Your task to perform on an android device: toggle notification dots Image 0: 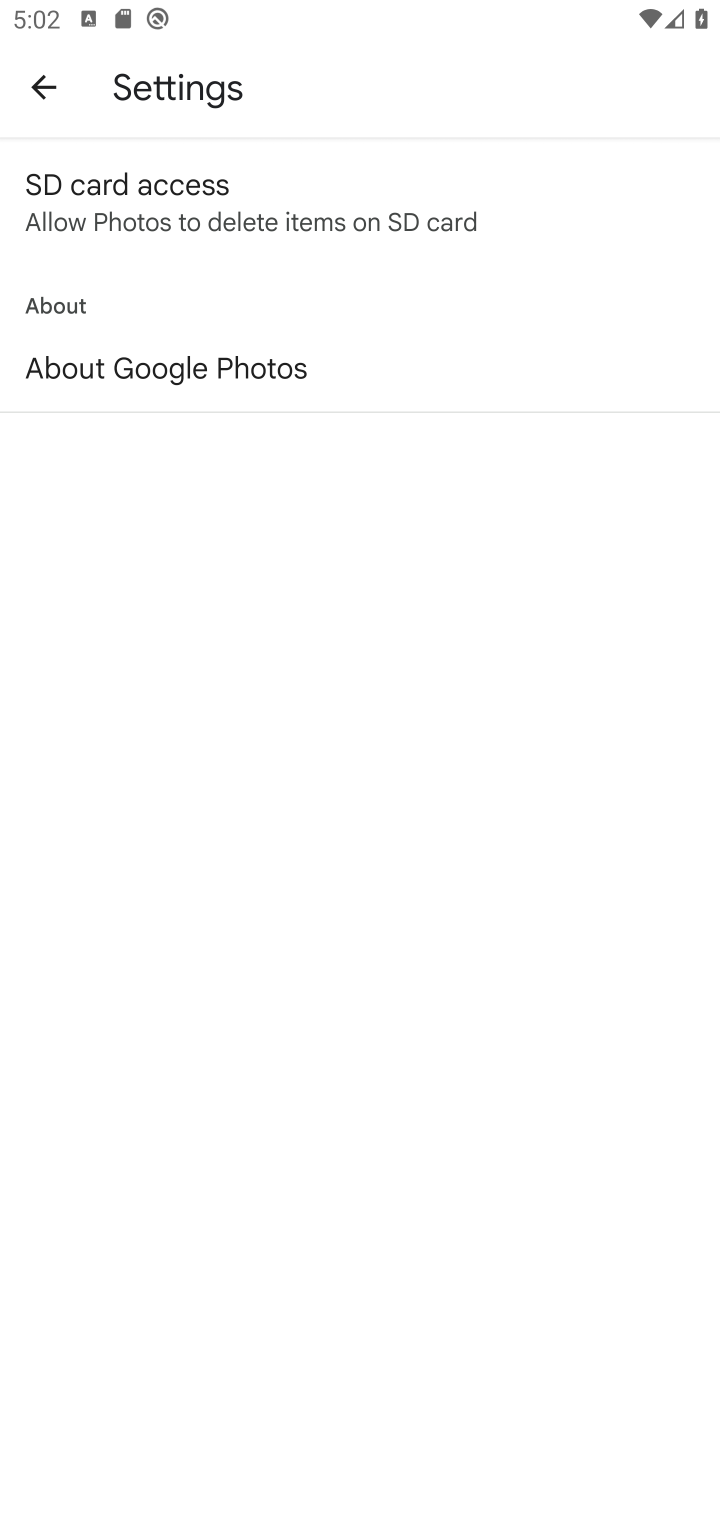
Step 0: press home button
Your task to perform on an android device: toggle notification dots Image 1: 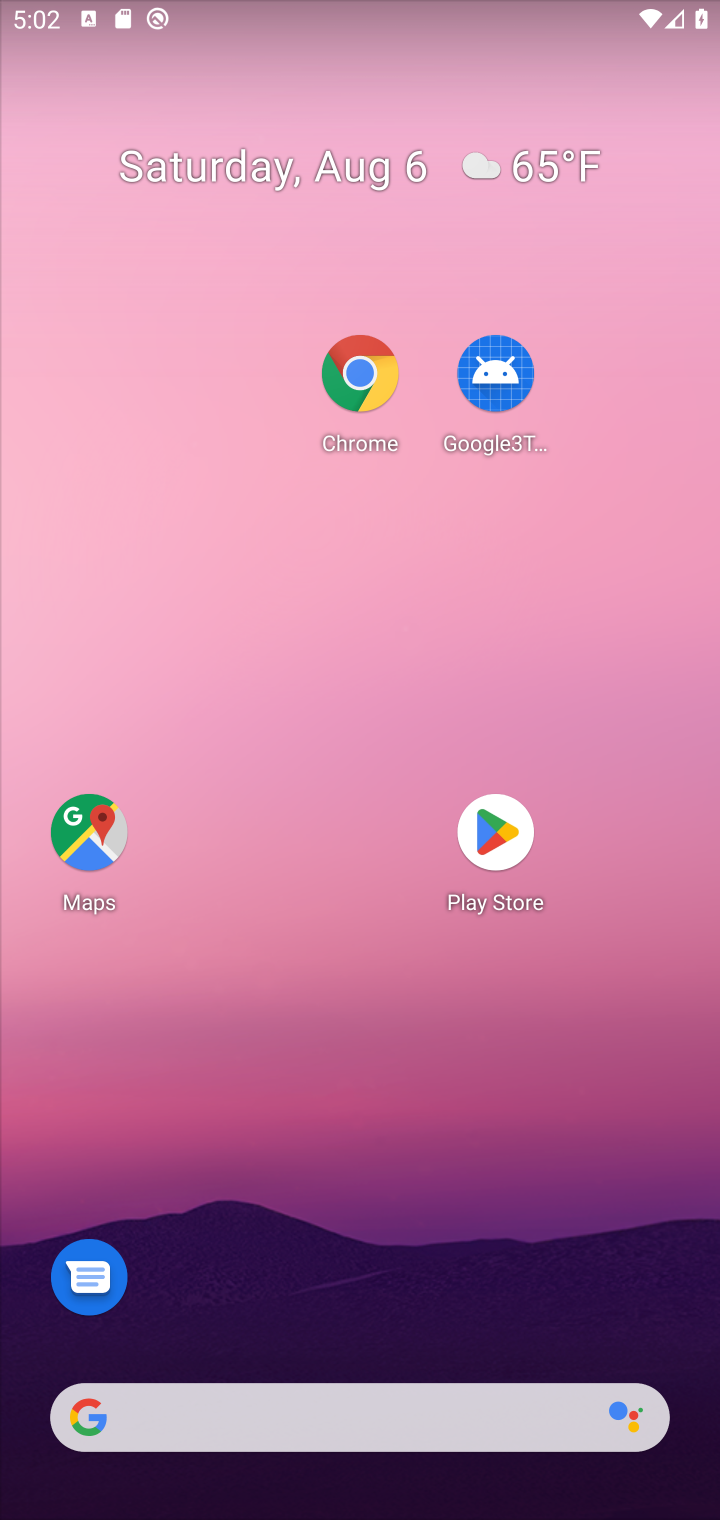
Step 1: drag from (346, 1407) to (386, 138)
Your task to perform on an android device: toggle notification dots Image 2: 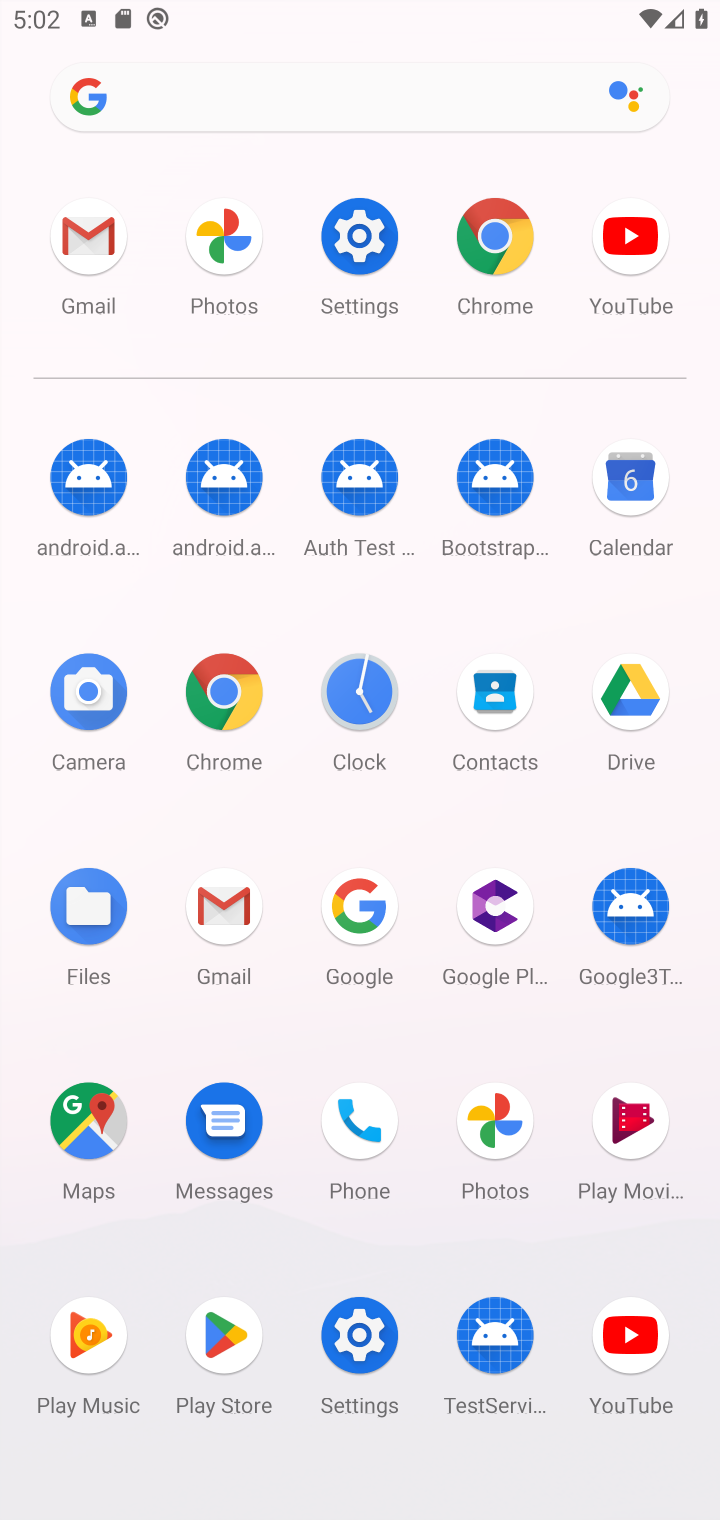
Step 2: click (378, 234)
Your task to perform on an android device: toggle notification dots Image 3: 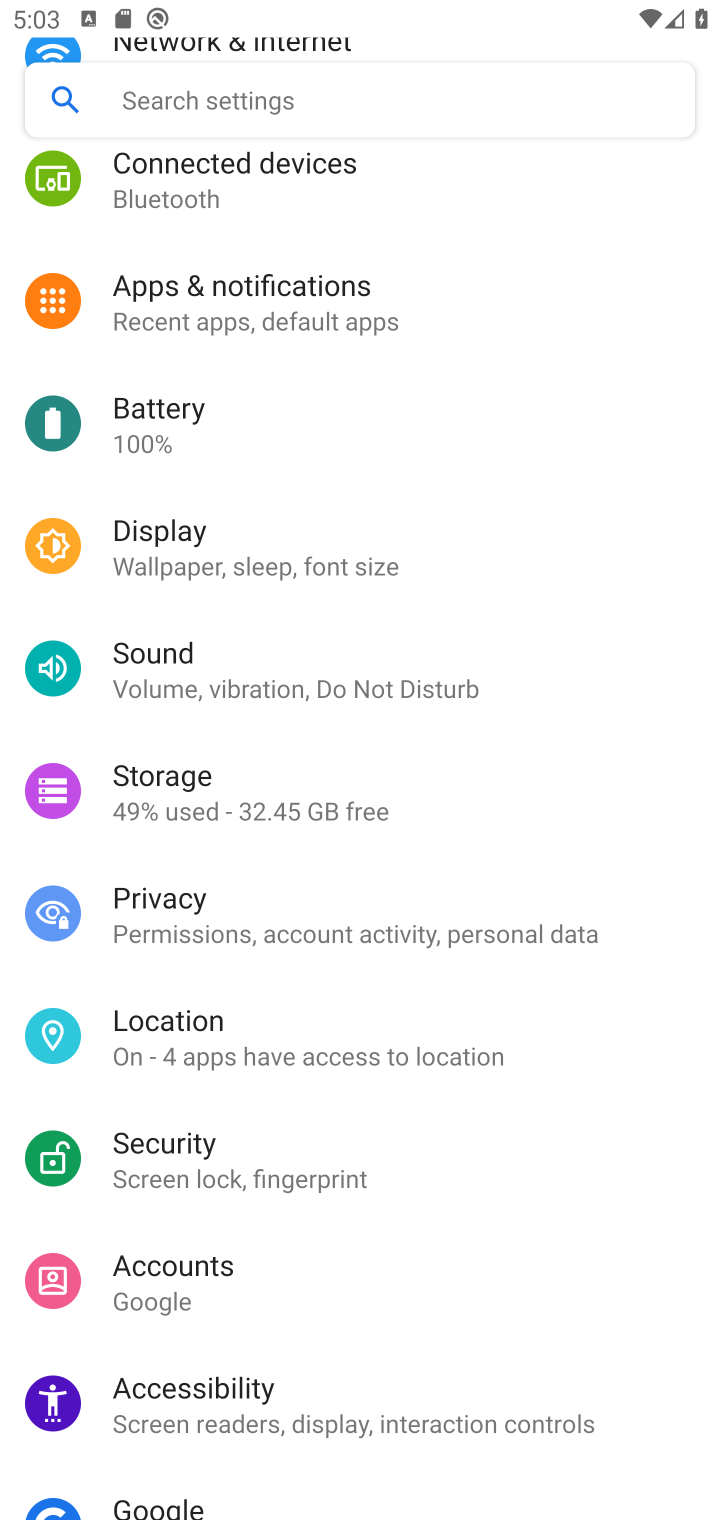
Step 3: click (225, 316)
Your task to perform on an android device: toggle notification dots Image 4: 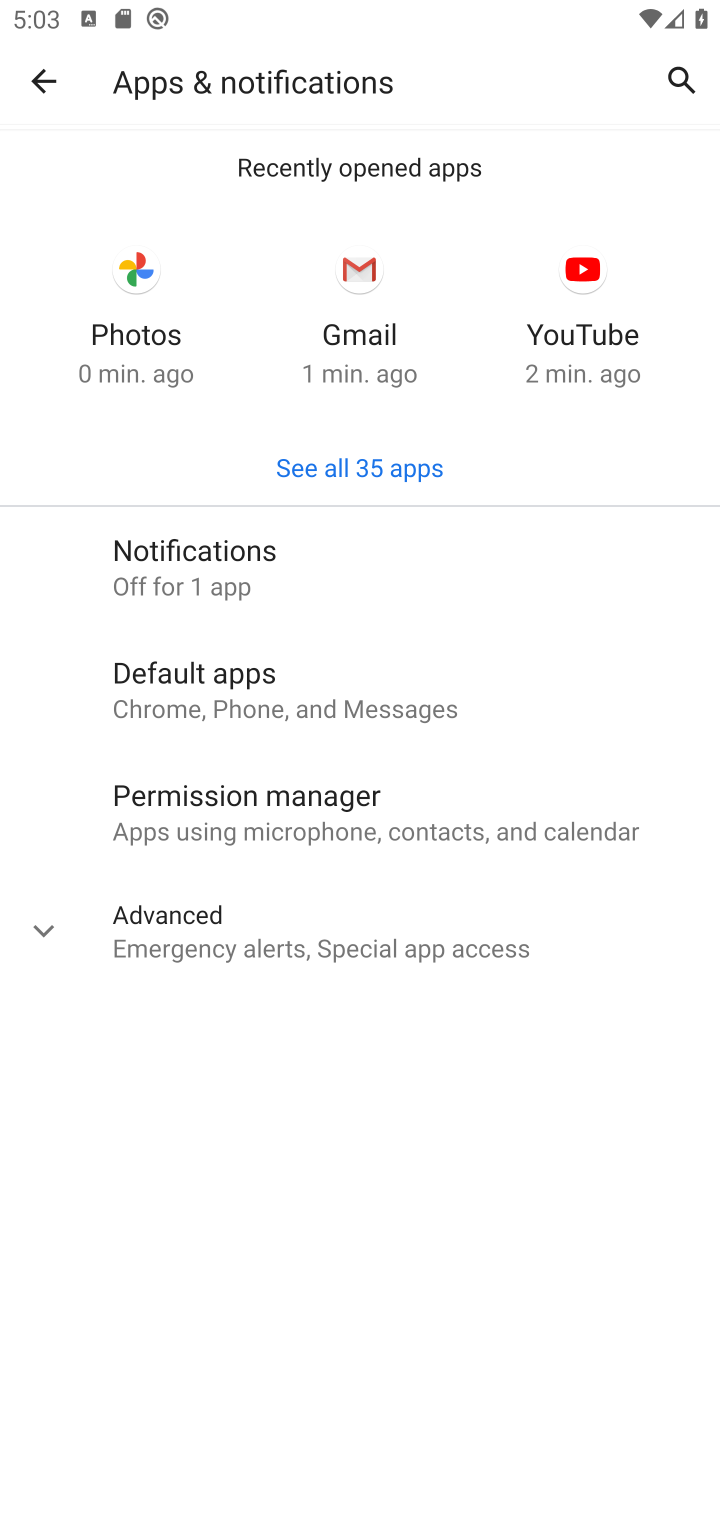
Step 4: click (252, 580)
Your task to perform on an android device: toggle notification dots Image 5: 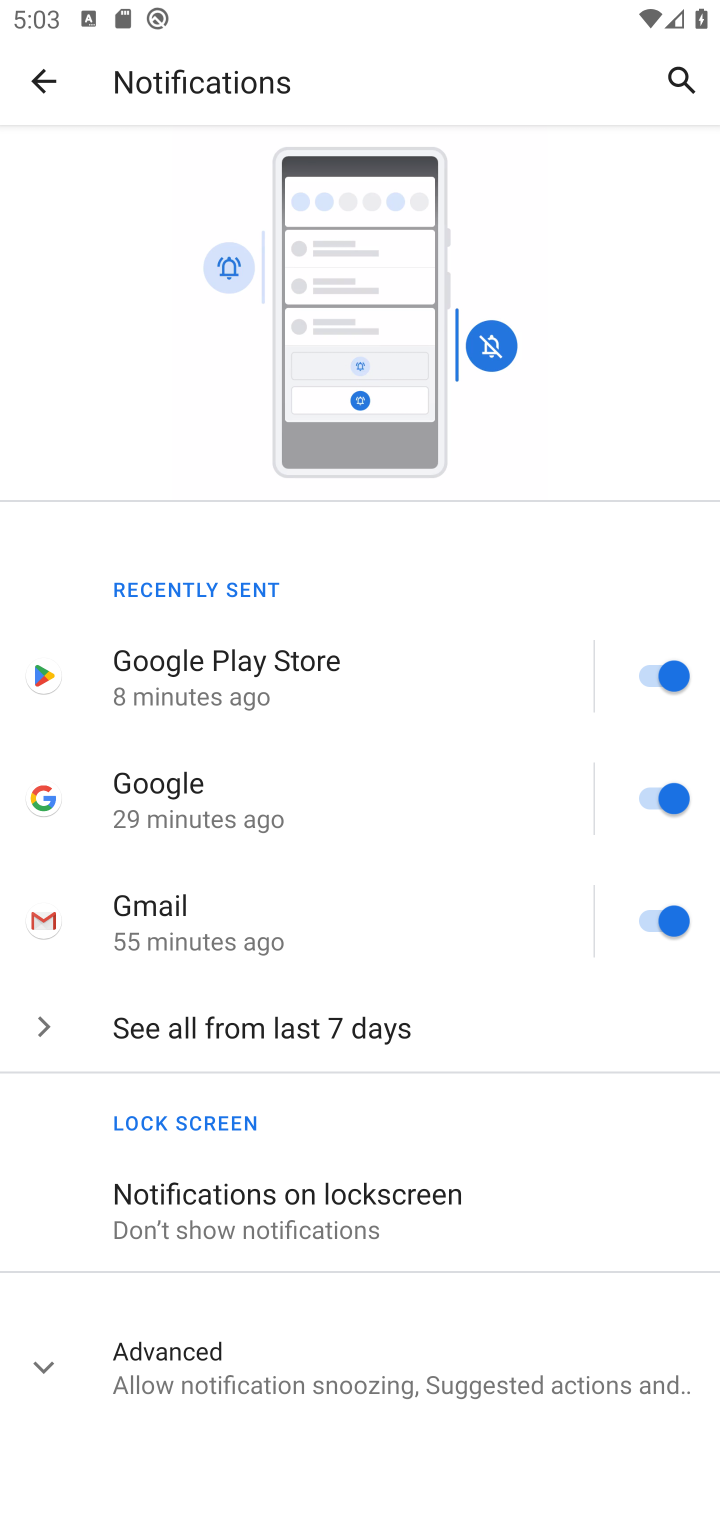
Step 5: click (366, 1369)
Your task to perform on an android device: toggle notification dots Image 6: 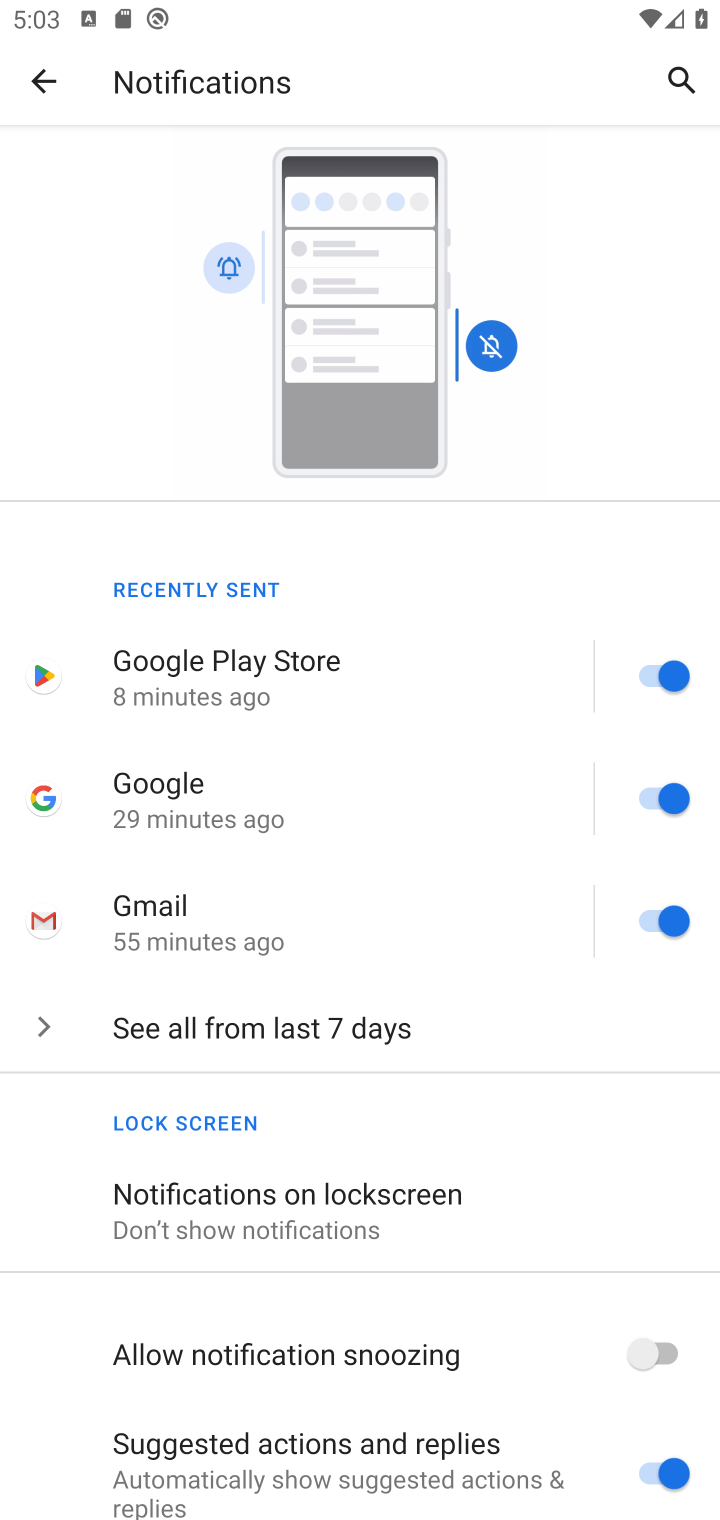
Step 6: drag from (454, 1266) to (426, 732)
Your task to perform on an android device: toggle notification dots Image 7: 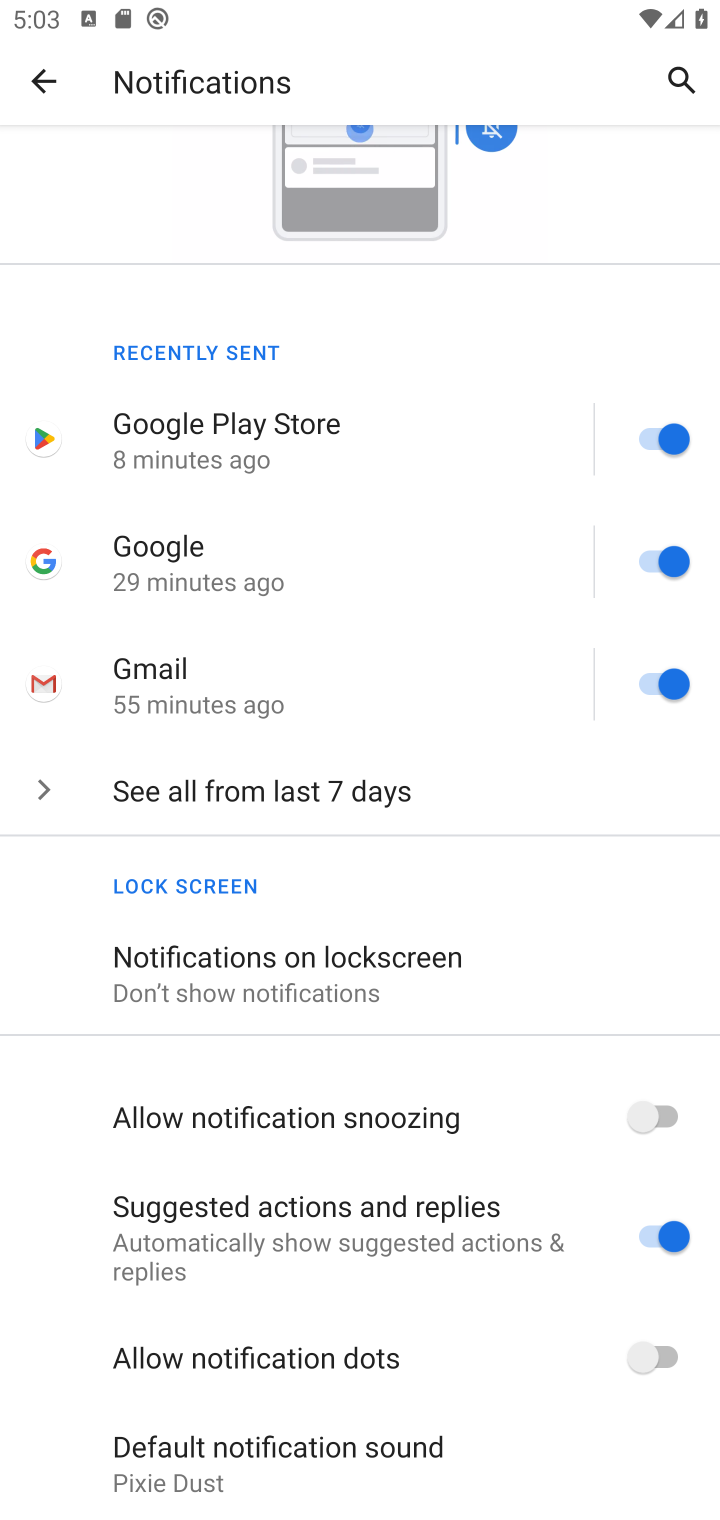
Step 7: click (657, 1352)
Your task to perform on an android device: toggle notification dots Image 8: 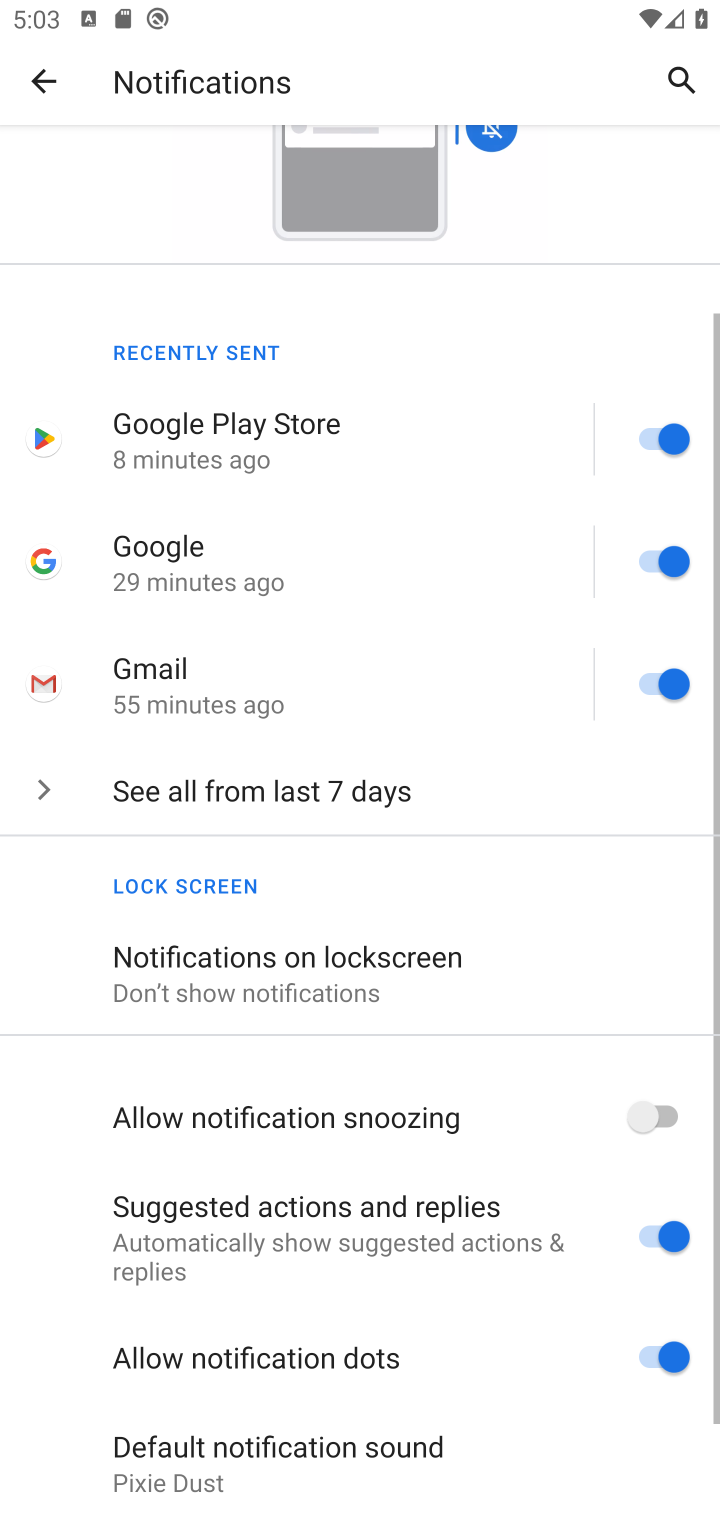
Step 8: task complete